Your task to perform on an android device: Check out the new ikea catalog. Image 0: 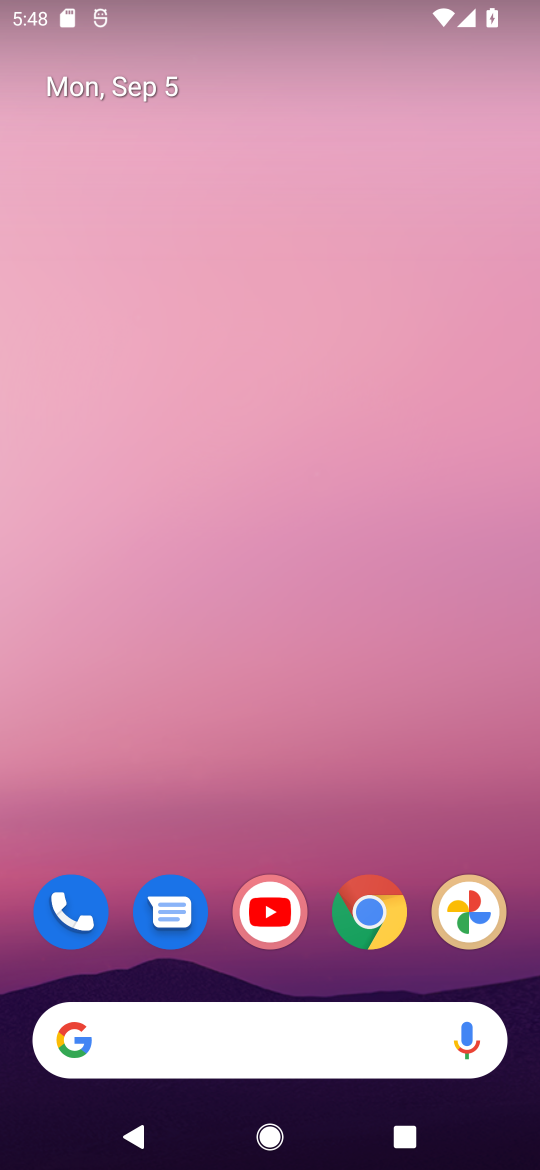
Step 0: click (382, 906)
Your task to perform on an android device: Check out the new ikea catalog. Image 1: 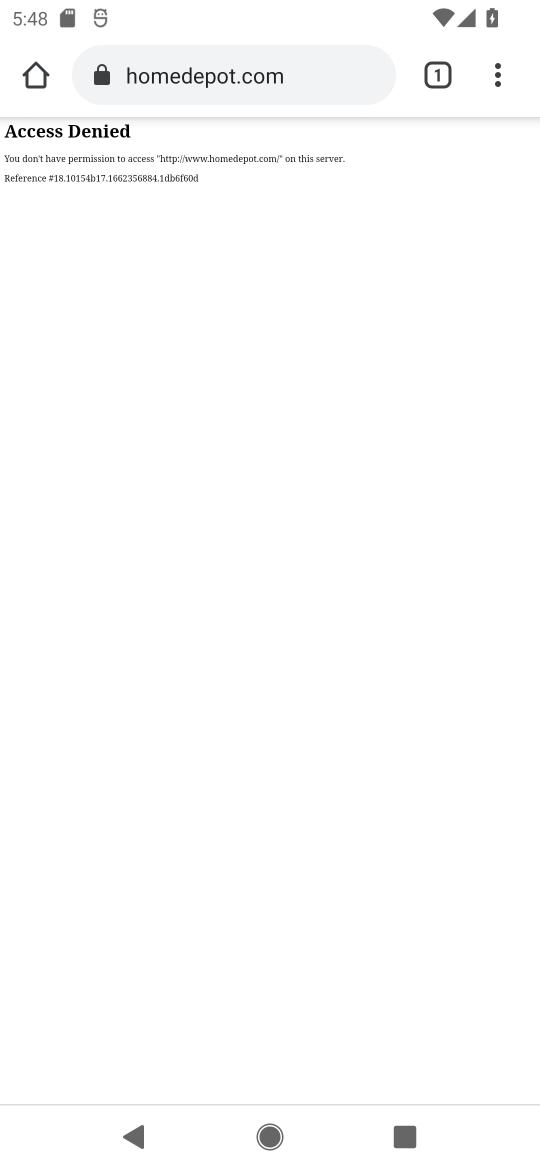
Step 1: click (152, 78)
Your task to perform on an android device: Check out the new ikea catalog. Image 2: 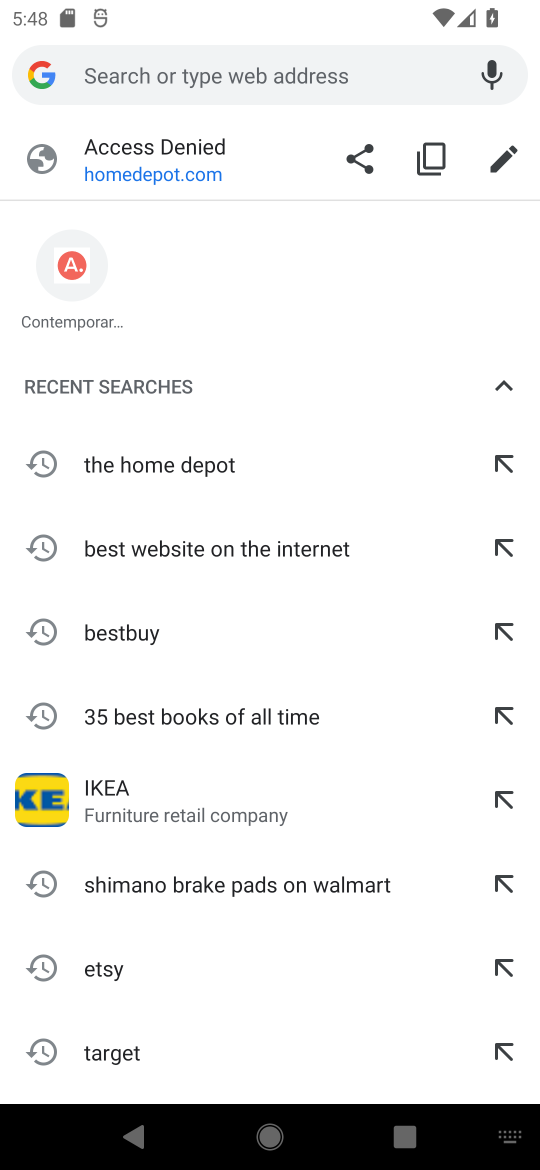
Step 2: type "the new ikea catalog"
Your task to perform on an android device: Check out the new ikea catalog. Image 3: 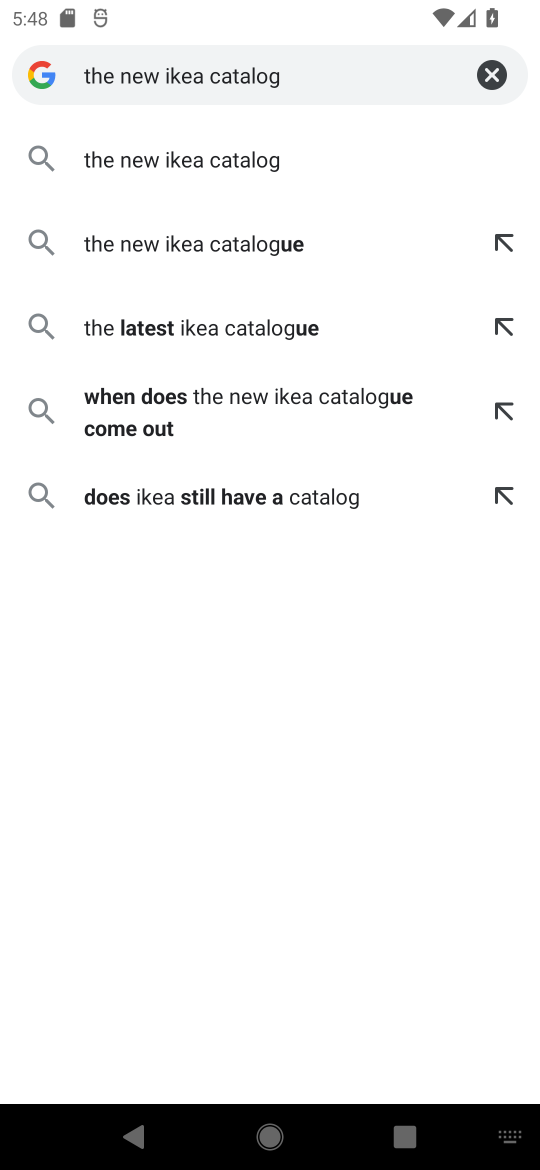
Step 3: click (218, 168)
Your task to perform on an android device: Check out the new ikea catalog. Image 4: 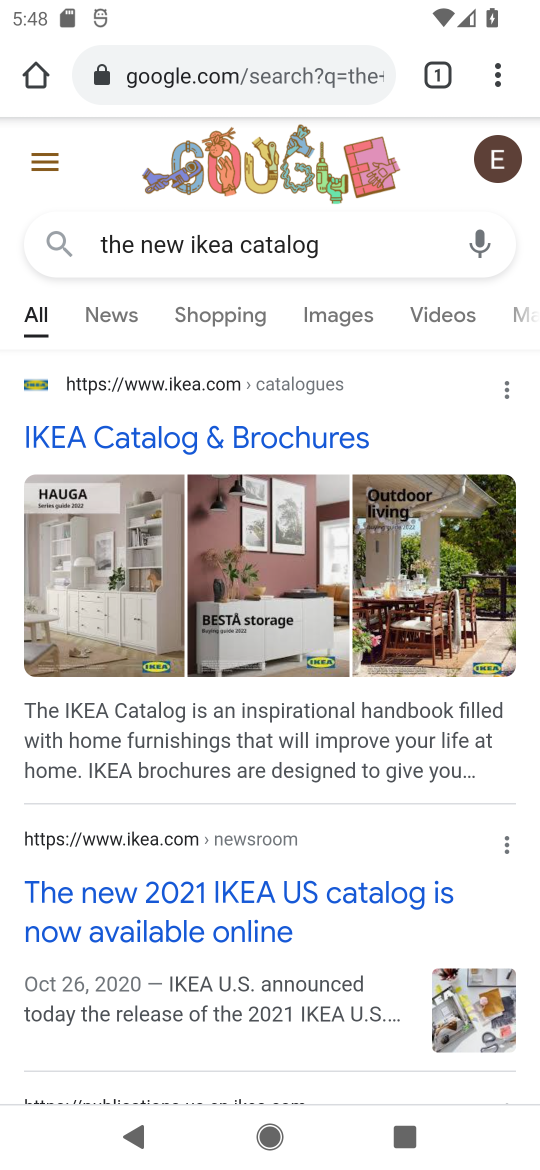
Step 4: task complete